Your task to perform on an android device: Open Chrome and go to settings Image 0: 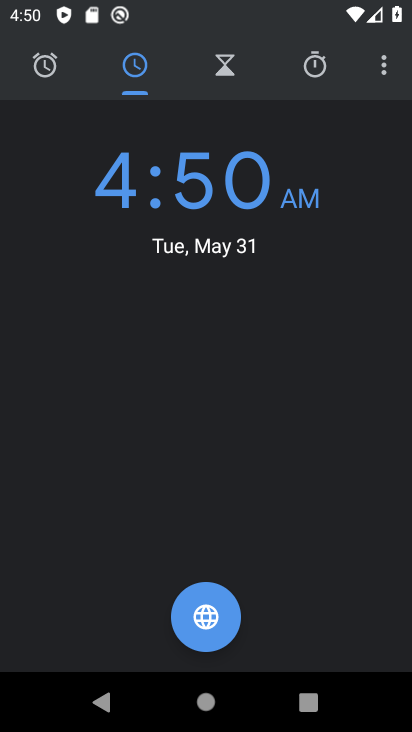
Step 0: press home button
Your task to perform on an android device: Open Chrome and go to settings Image 1: 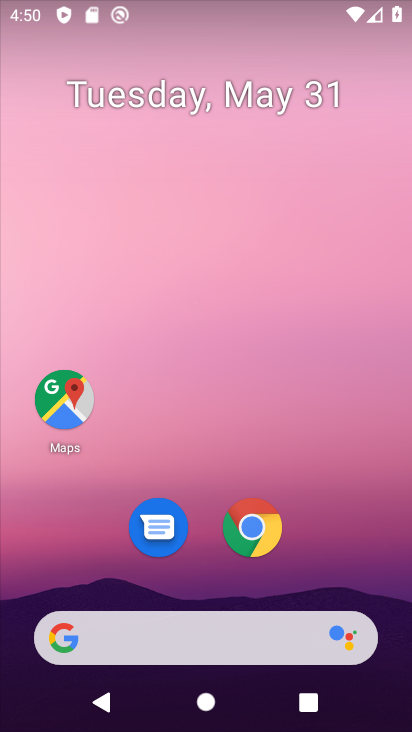
Step 1: click (263, 531)
Your task to perform on an android device: Open Chrome and go to settings Image 2: 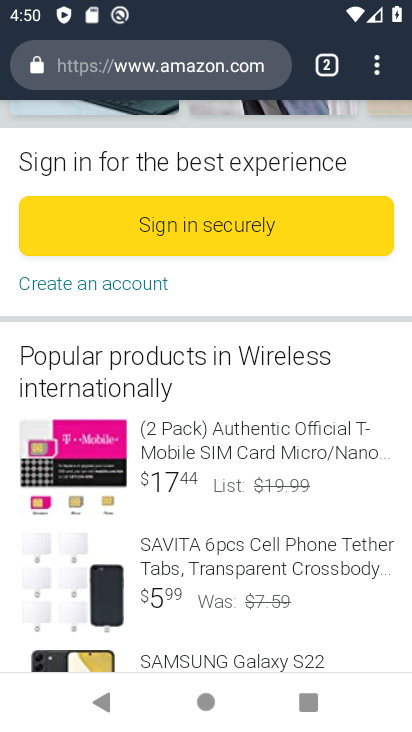
Step 2: task complete